Your task to perform on an android device: uninstall "Firefox Browser" Image 0: 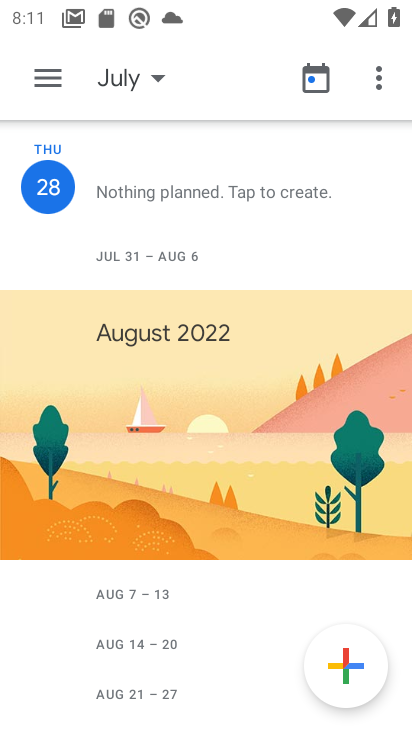
Step 0: press home button
Your task to perform on an android device: uninstall "Firefox Browser" Image 1: 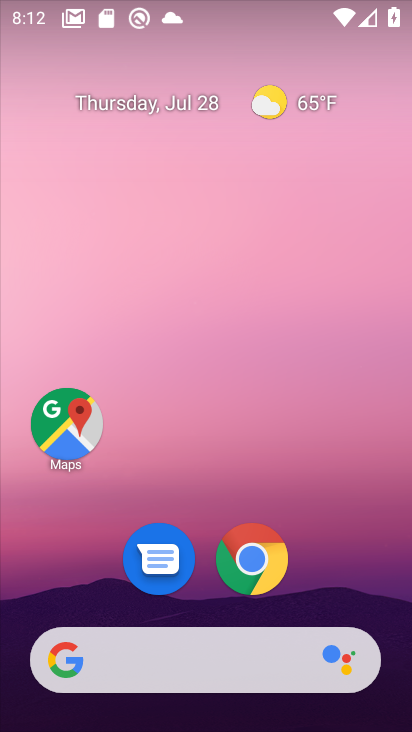
Step 1: drag from (212, 569) to (292, 4)
Your task to perform on an android device: uninstall "Firefox Browser" Image 2: 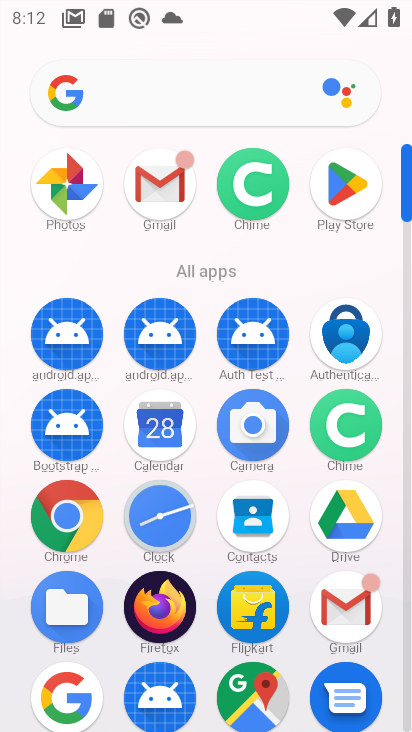
Step 2: click (356, 205)
Your task to perform on an android device: uninstall "Firefox Browser" Image 3: 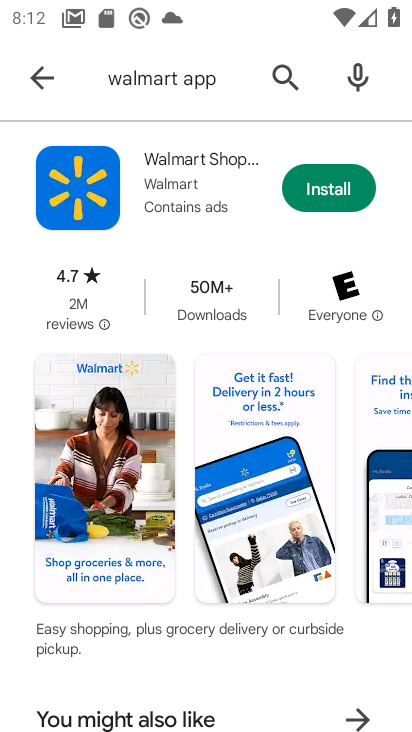
Step 3: click (149, 75)
Your task to perform on an android device: uninstall "Firefox Browser" Image 4: 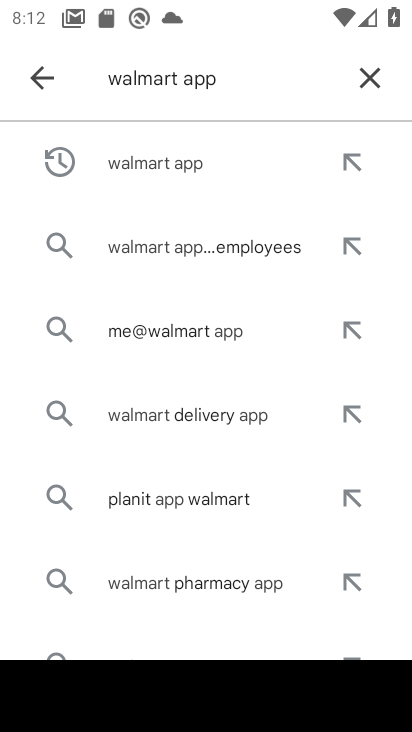
Step 4: click (367, 81)
Your task to perform on an android device: uninstall "Firefox Browser" Image 5: 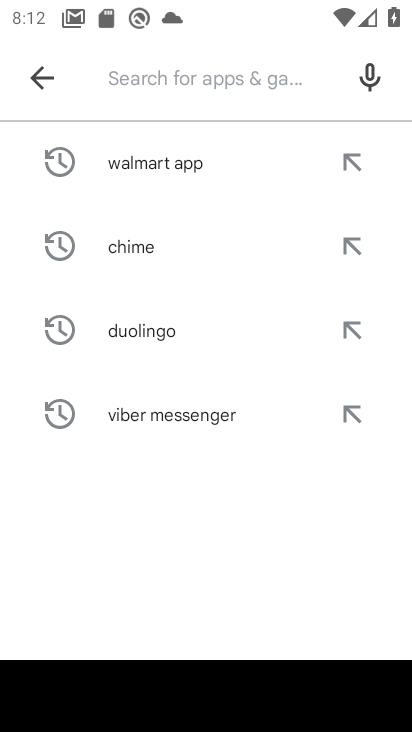
Step 5: type "firefox browser"
Your task to perform on an android device: uninstall "Firefox Browser" Image 6: 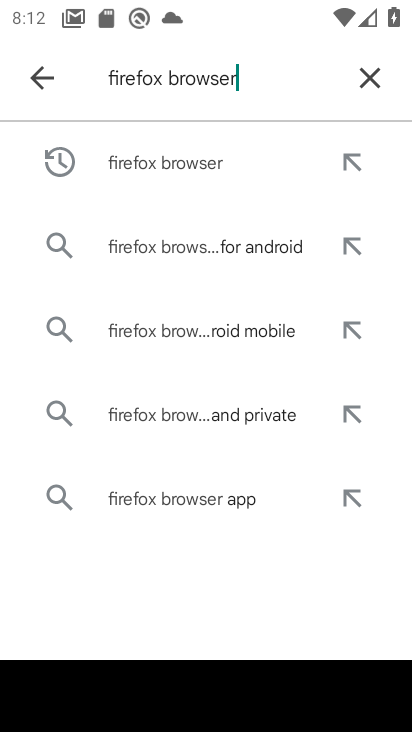
Step 6: click (204, 158)
Your task to perform on an android device: uninstall "Firefox Browser" Image 7: 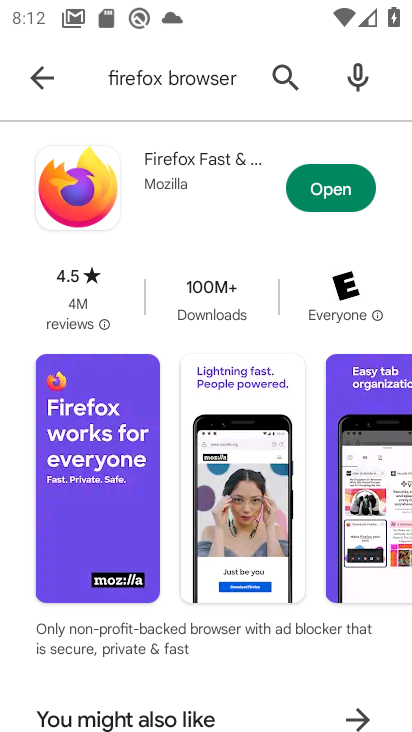
Step 7: click (194, 175)
Your task to perform on an android device: uninstall "Firefox Browser" Image 8: 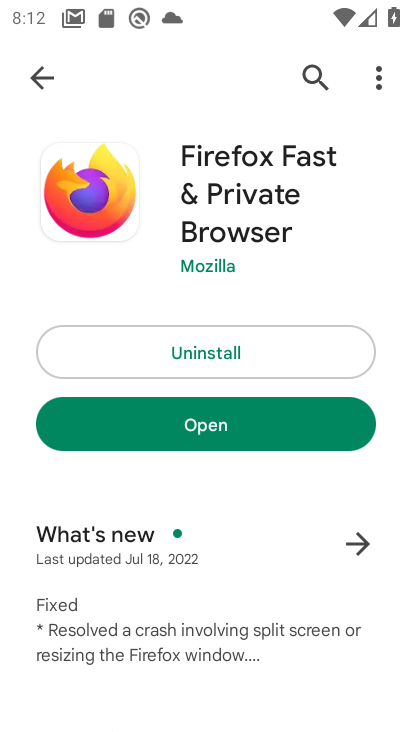
Step 8: click (231, 349)
Your task to perform on an android device: uninstall "Firefox Browser" Image 9: 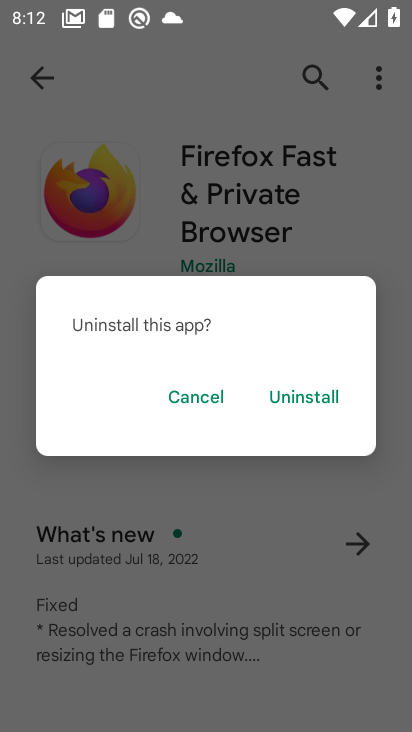
Step 9: click (311, 404)
Your task to perform on an android device: uninstall "Firefox Browser" Image 10: 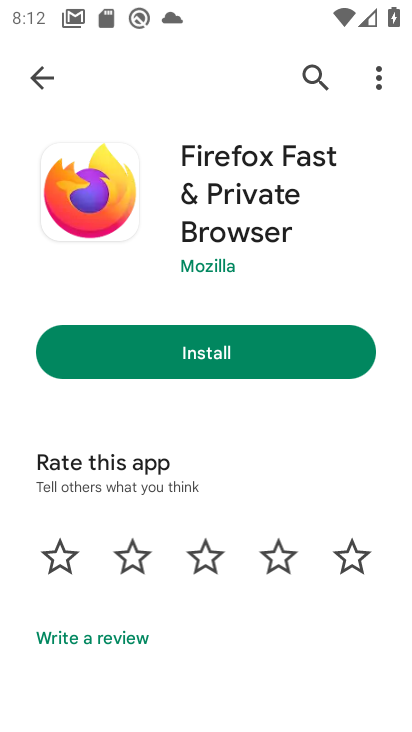
Step 10: task complete